Your task to perform on an android device: Search for razer blade on target, select the first entry, and add it to the cart. Image 0: 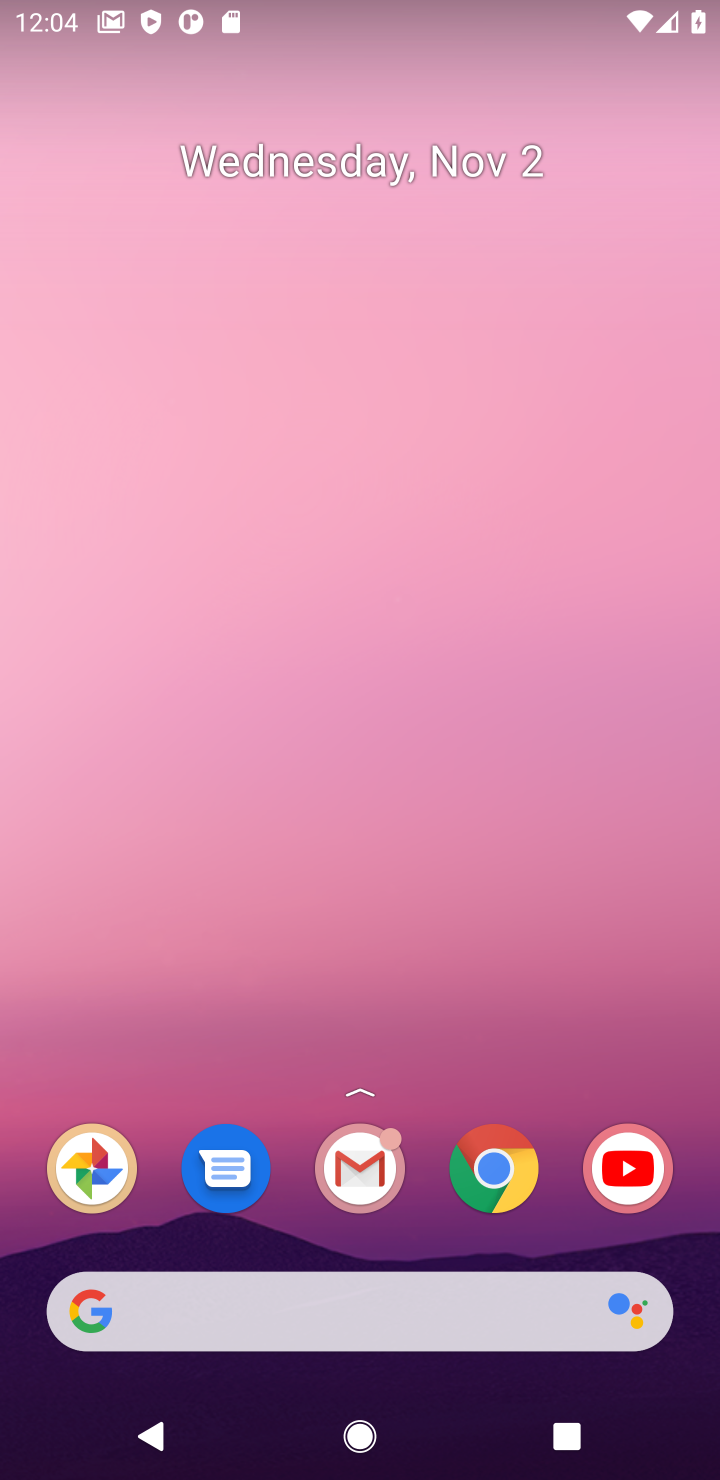
Step 0: click (480, 1165)
Your task to perform on an android device: Search for razer blade on target, select the first entry, and add it to the cart. Image 1: 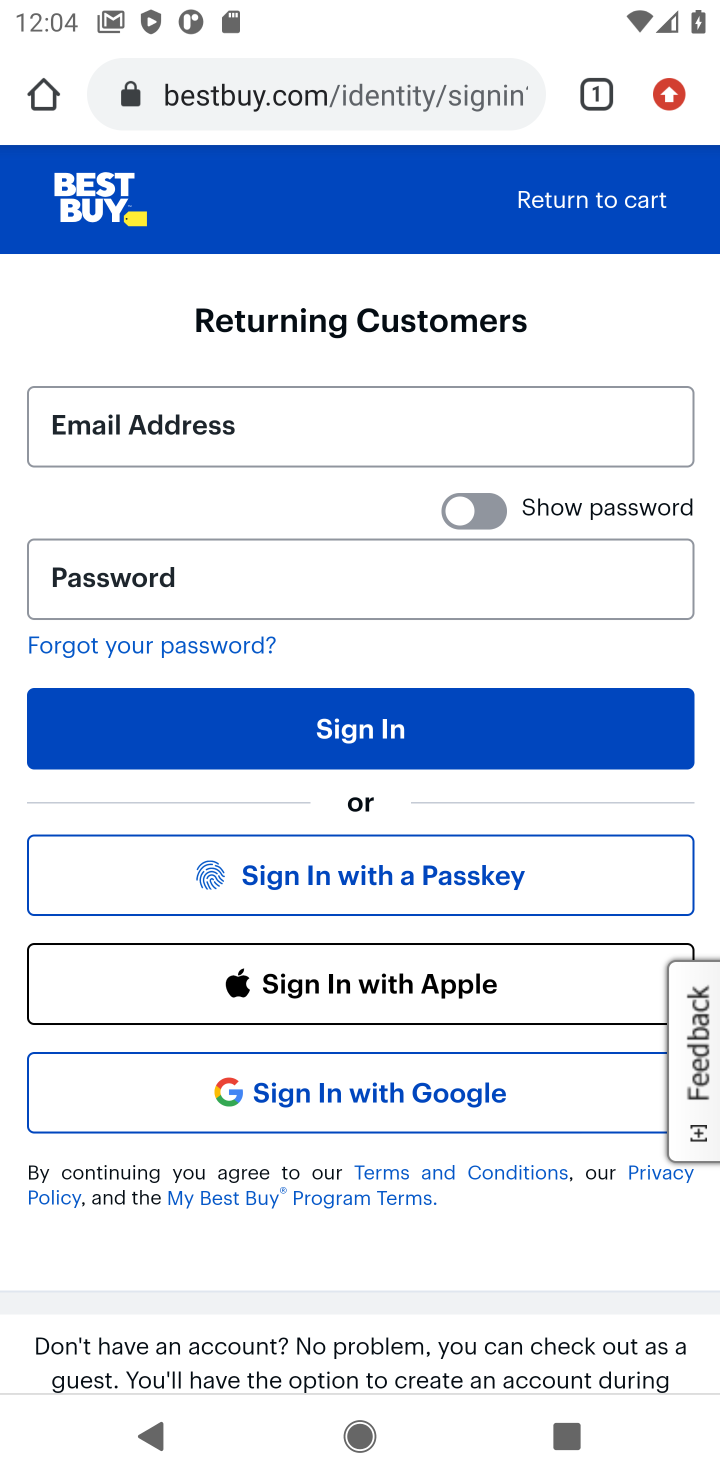
Step 1: click (441, 94)
Your task to perform on an android device: Search for razer blade on target, select the first entry, and add it to the cart. Image 2: 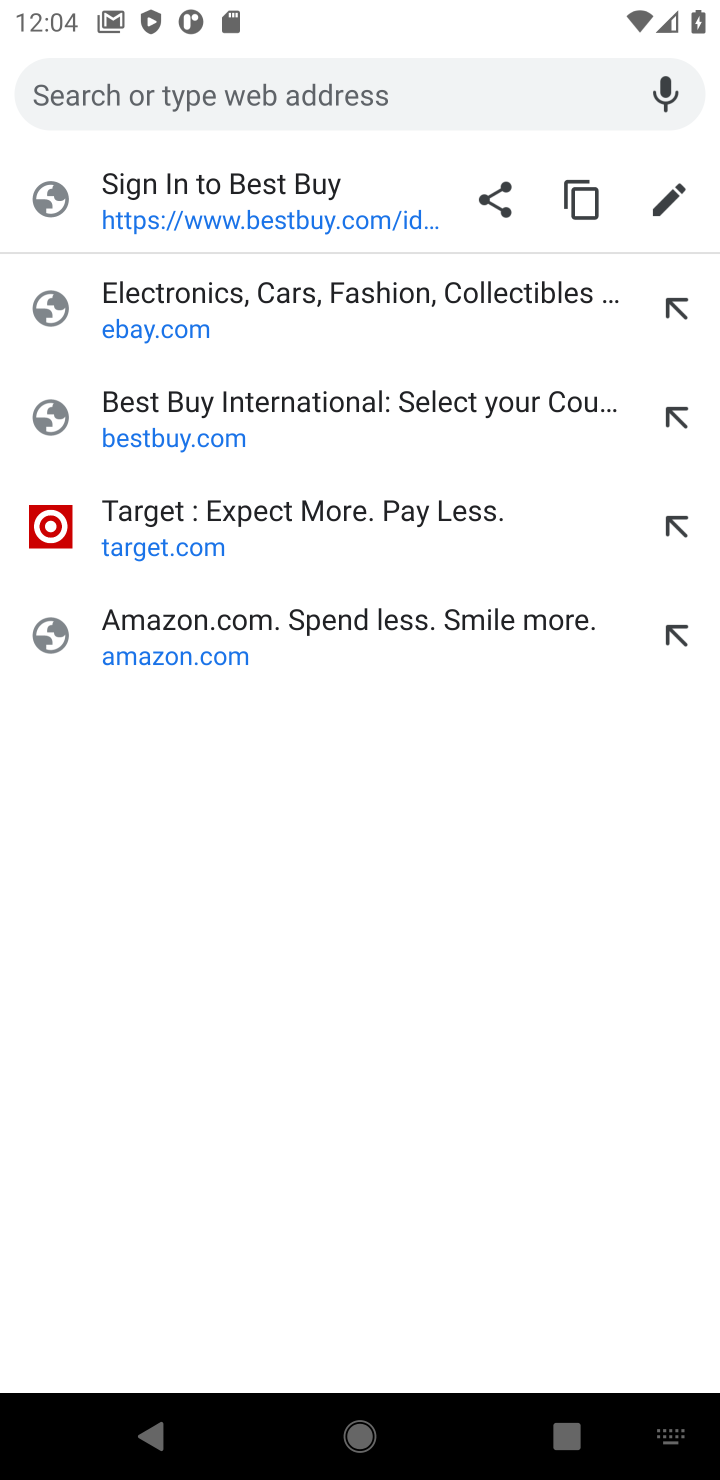
Step 2: press enter
Your task to perform on an android device: Search for razer blade on target, select the first entry, and add it to the cart. Image 3: 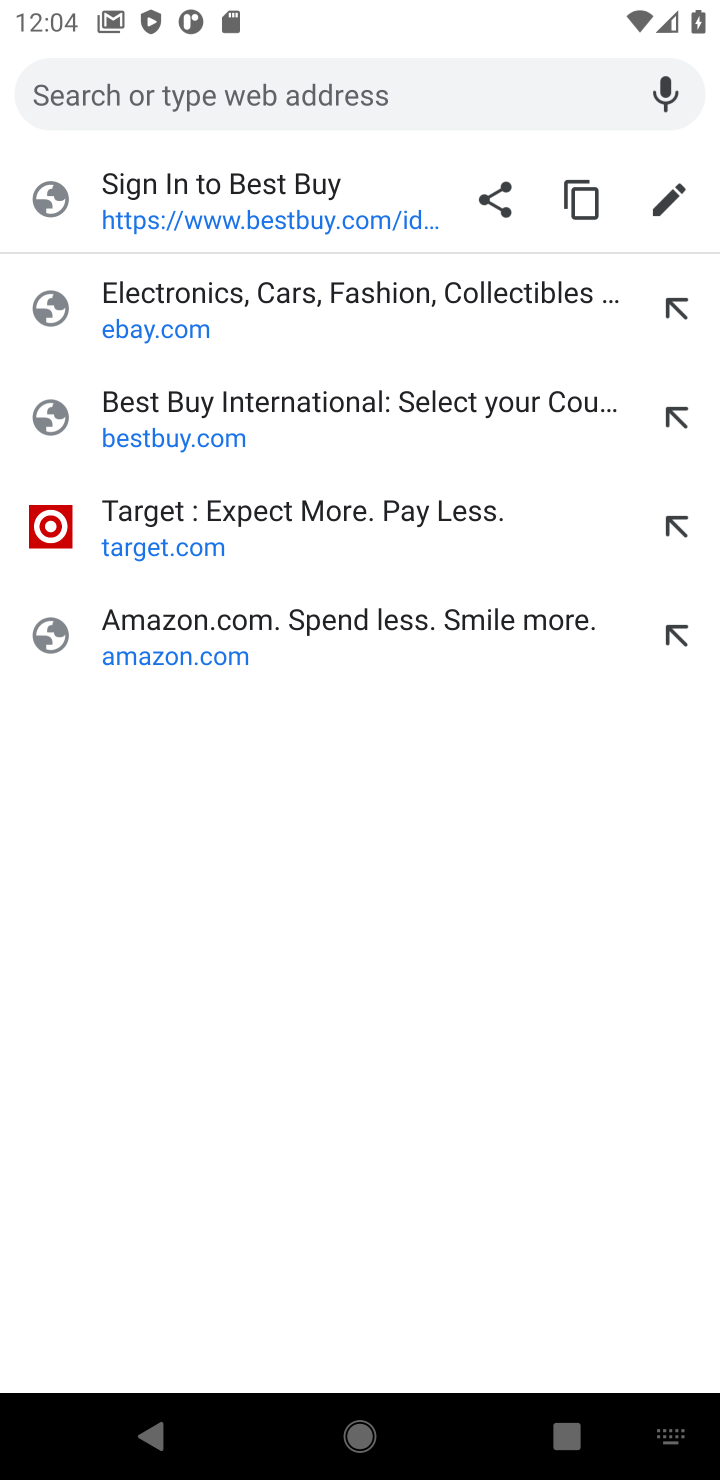
Step 3: type "target"
Your task to perform on an android device: Search for razer blade on target, select the first entry, and add it to the cart. Image 4: 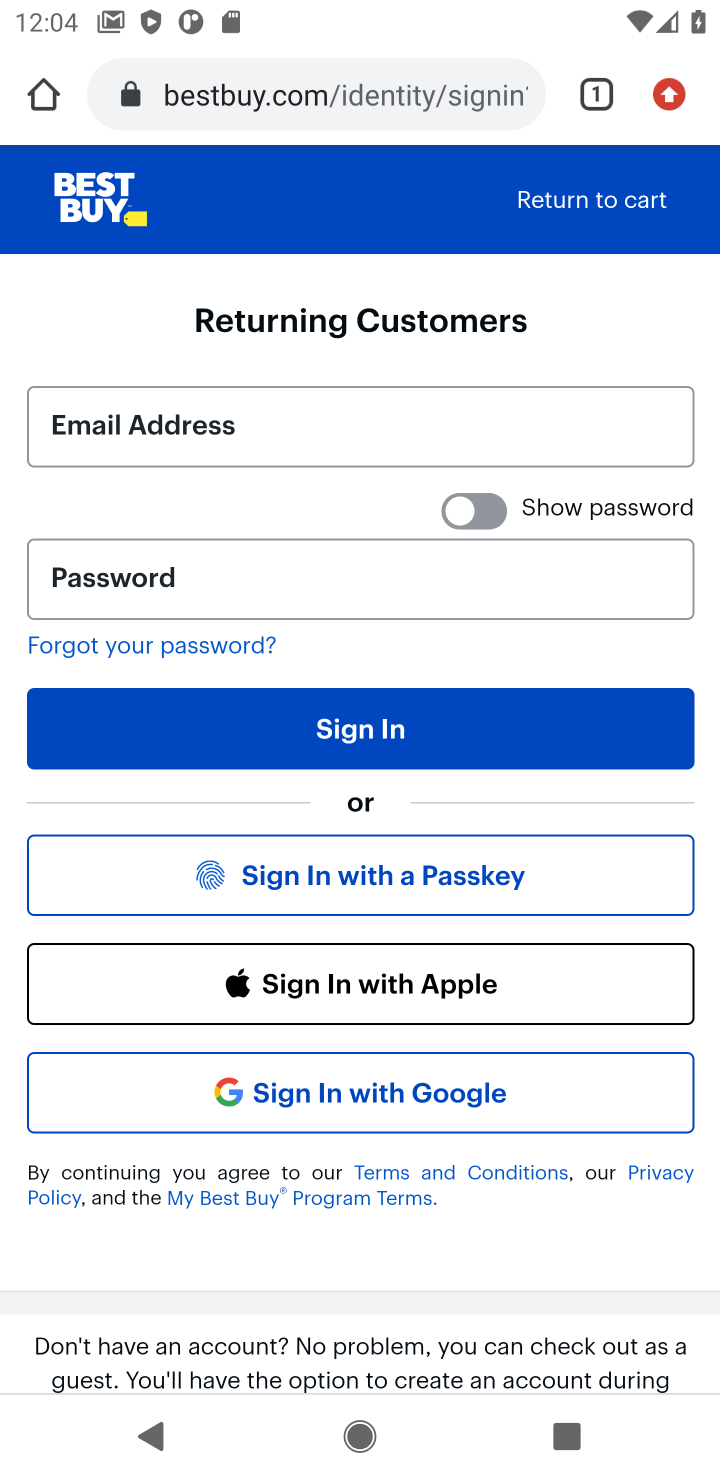
Step 4: click (244, 94)
Your task to perform on an android device: Search for razer blade on target, select the first entry, and add it to the cart. Image 5: 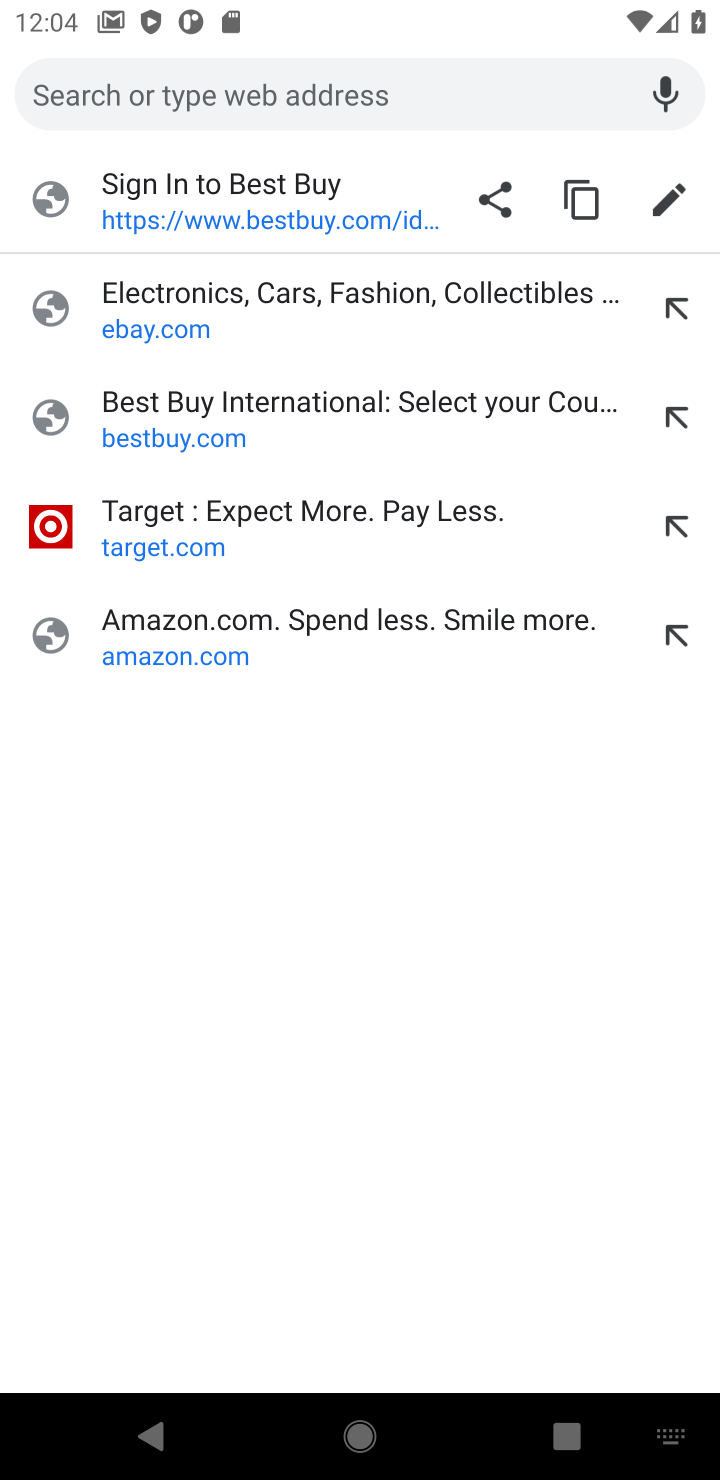
Step 5: type "target"
Your task to perform on an android device: Search for razer blade on target, select the first entry, and add it to the cart. Image 6: 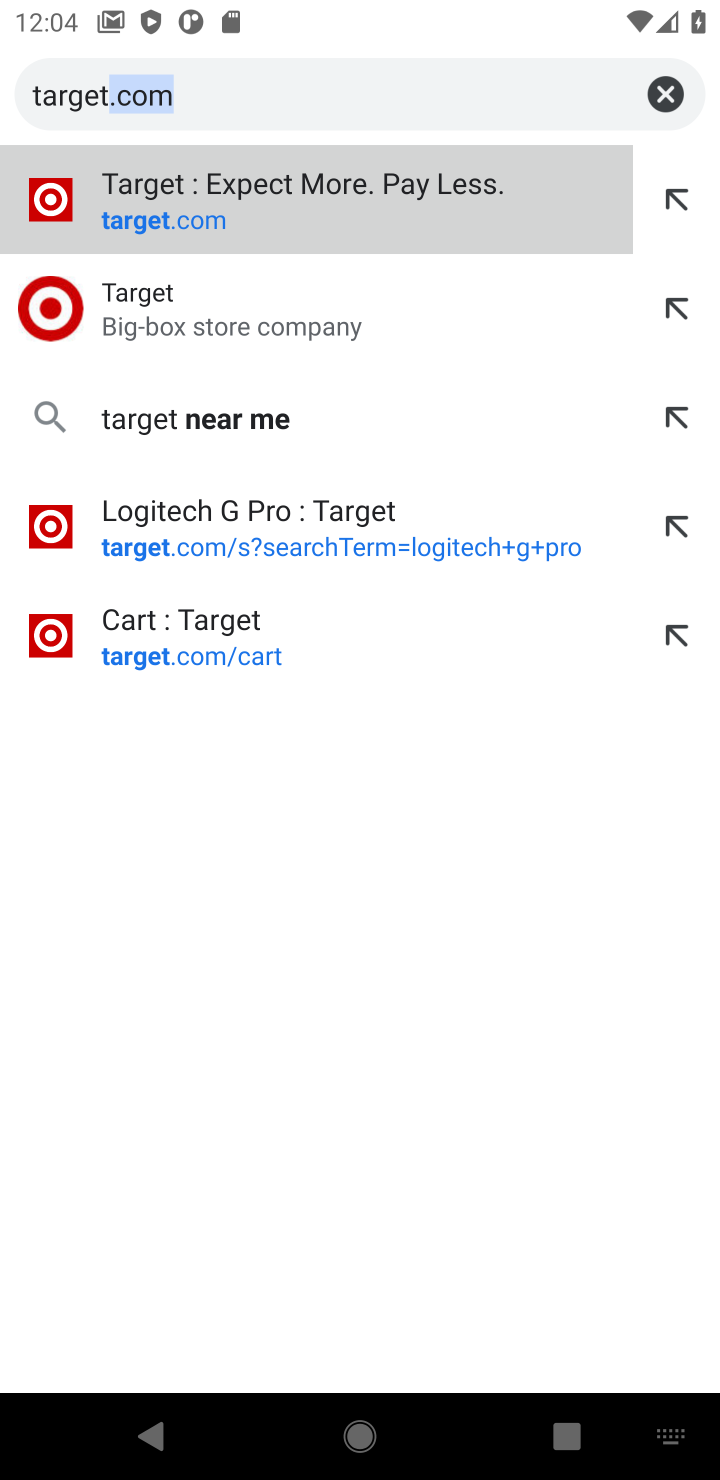
Step 6: press enter
Your task to perform on an android device: Search for razer blade on target, select the first entry, and add it to the cart. Image 7: 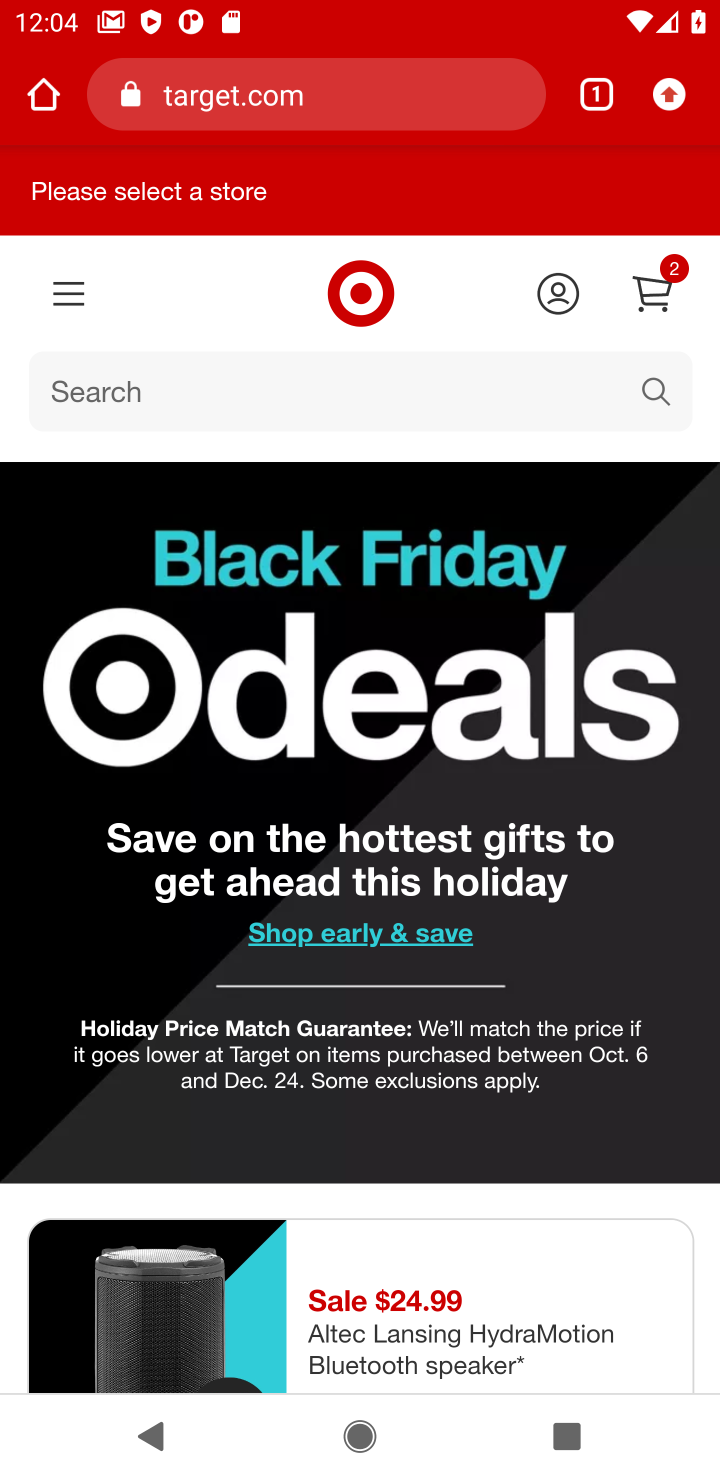
Step 7: click (640, 383)
Your task to perform on an android device: Search for razer blade on target, select the first entry, and add it to the cart. Image 8: 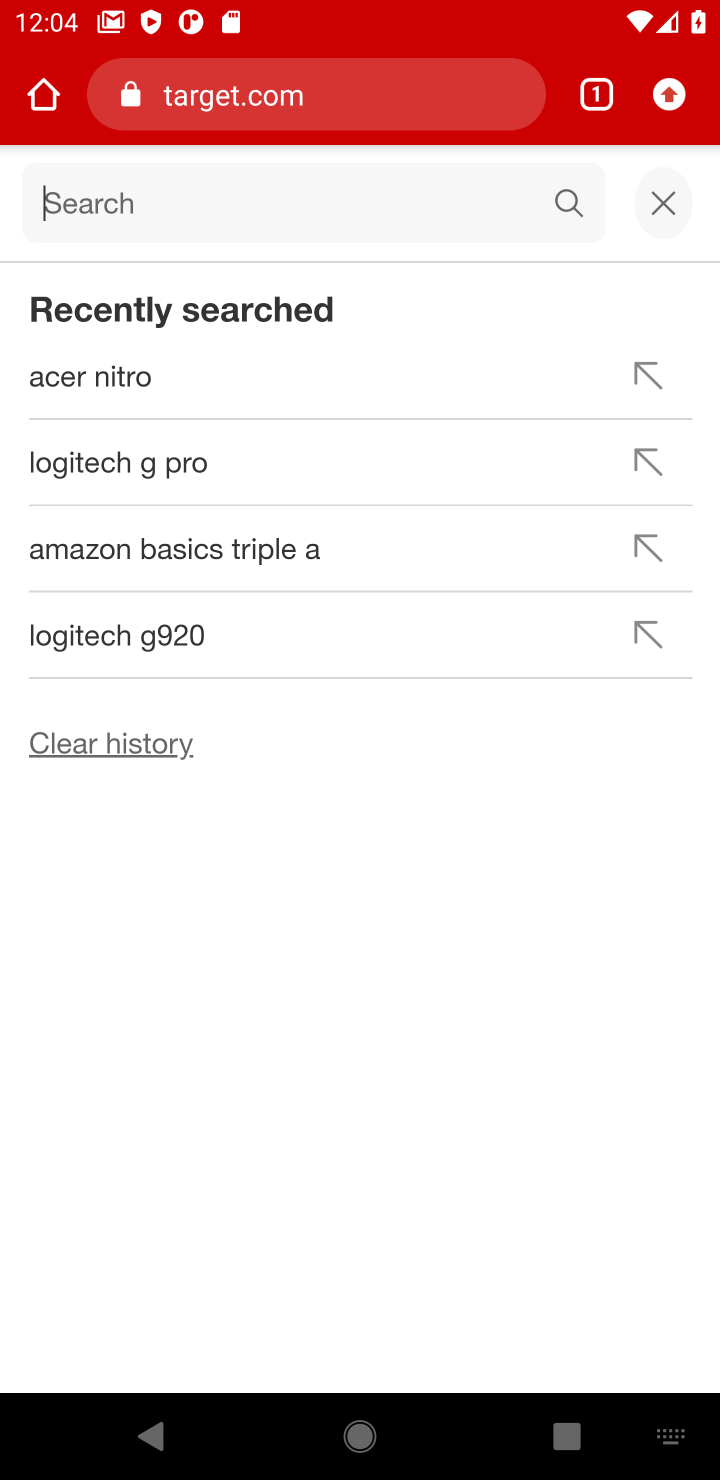
Step 8: type "razer blade"
Your task to perform on an android device: Search for razer blade on target, select the first entry, and add it to the cart. Image 9: 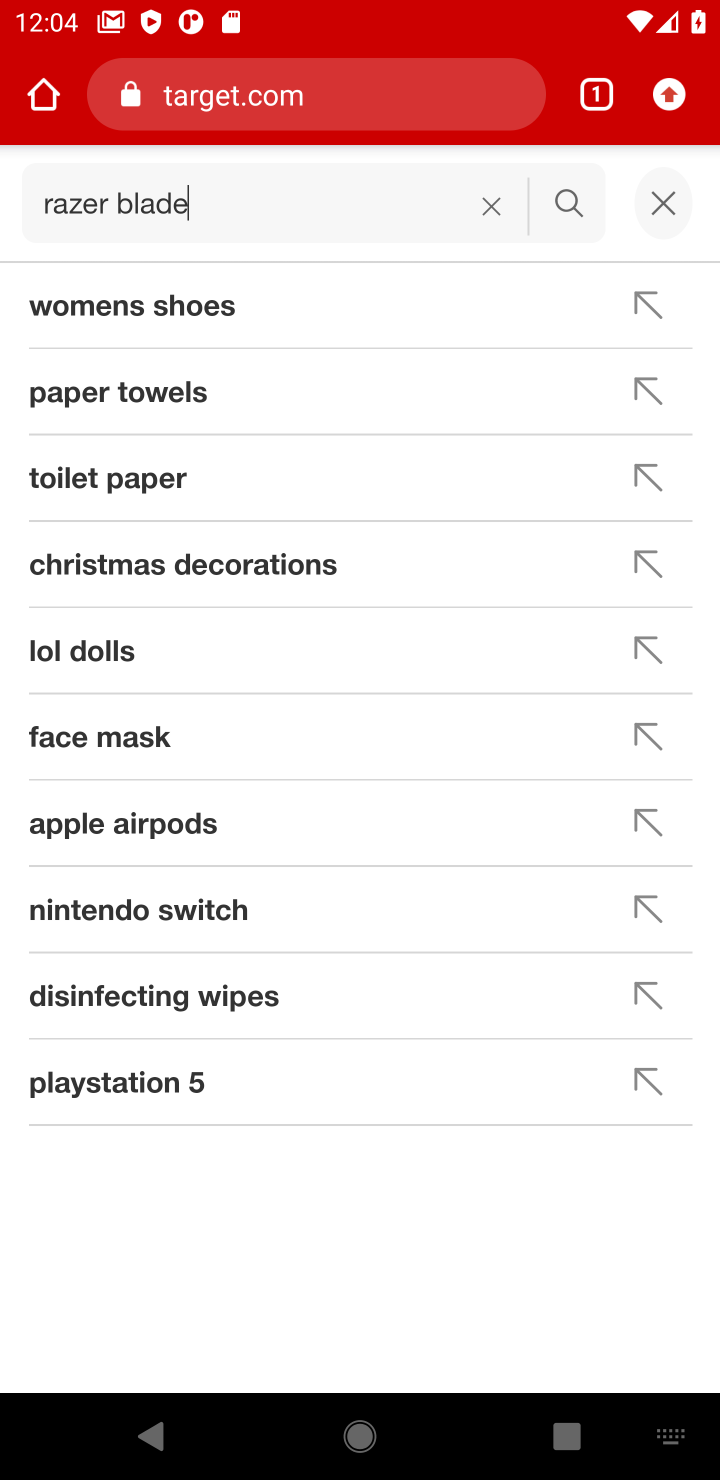
Step 9: press enter
Your task to perform on an android device: Search for razer blade on target, select the first entry, and add it to the cart. Image 10: 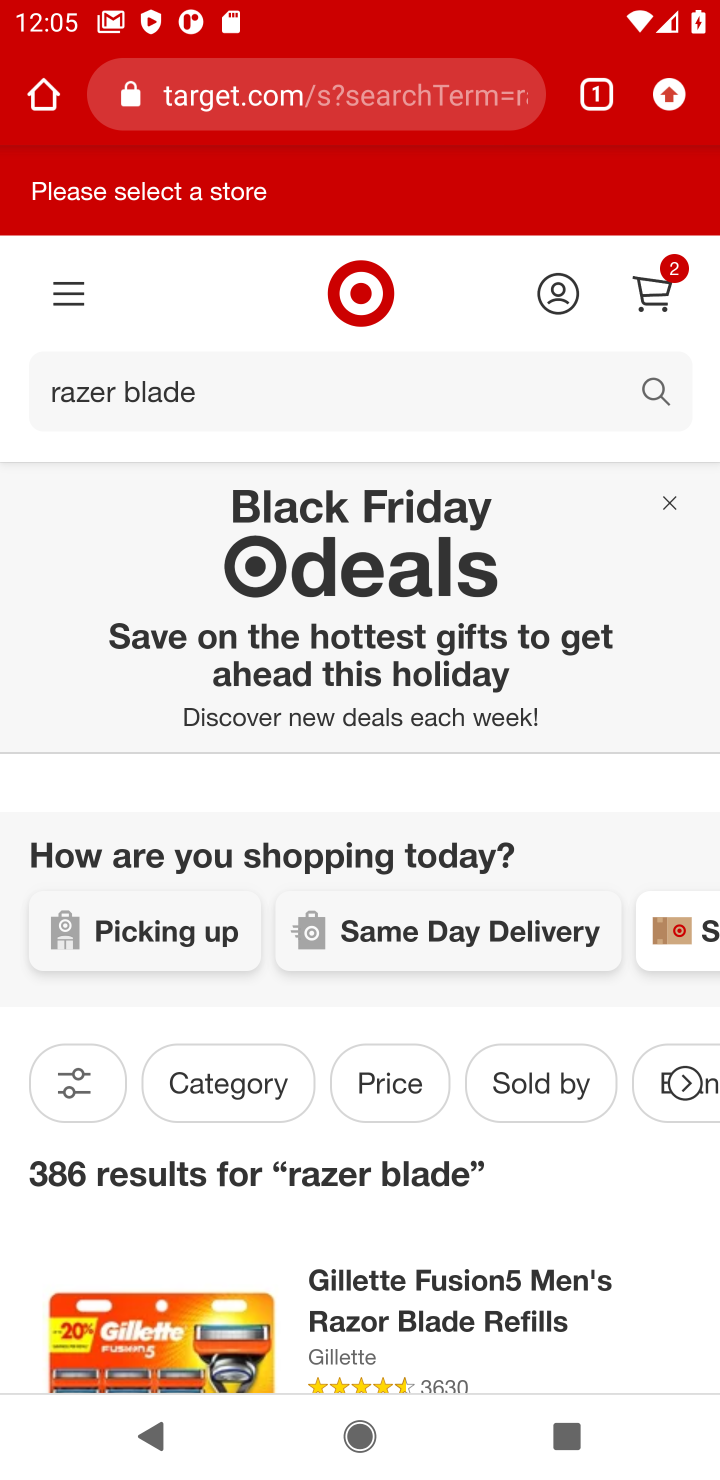
Step 10: click (452, 1287)
Your task to perform on an android device: Search for razer blade on target, select the first entry, and add it to the cart. Image 11: 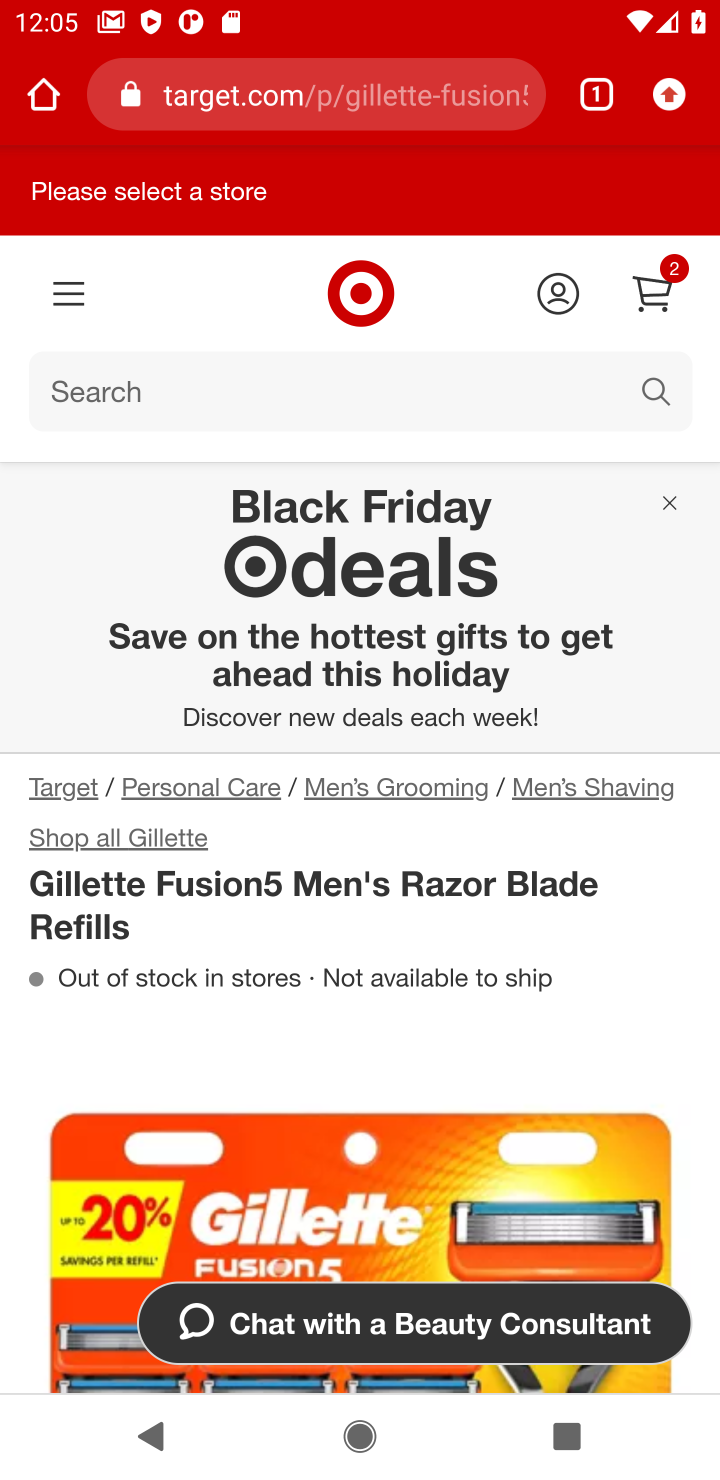
Step 11: drag from (520, 934) to (573, 355)
Your task to perform on an android device: Search for razer blade on target, select the first entry, and add it to the cart. Image 12: 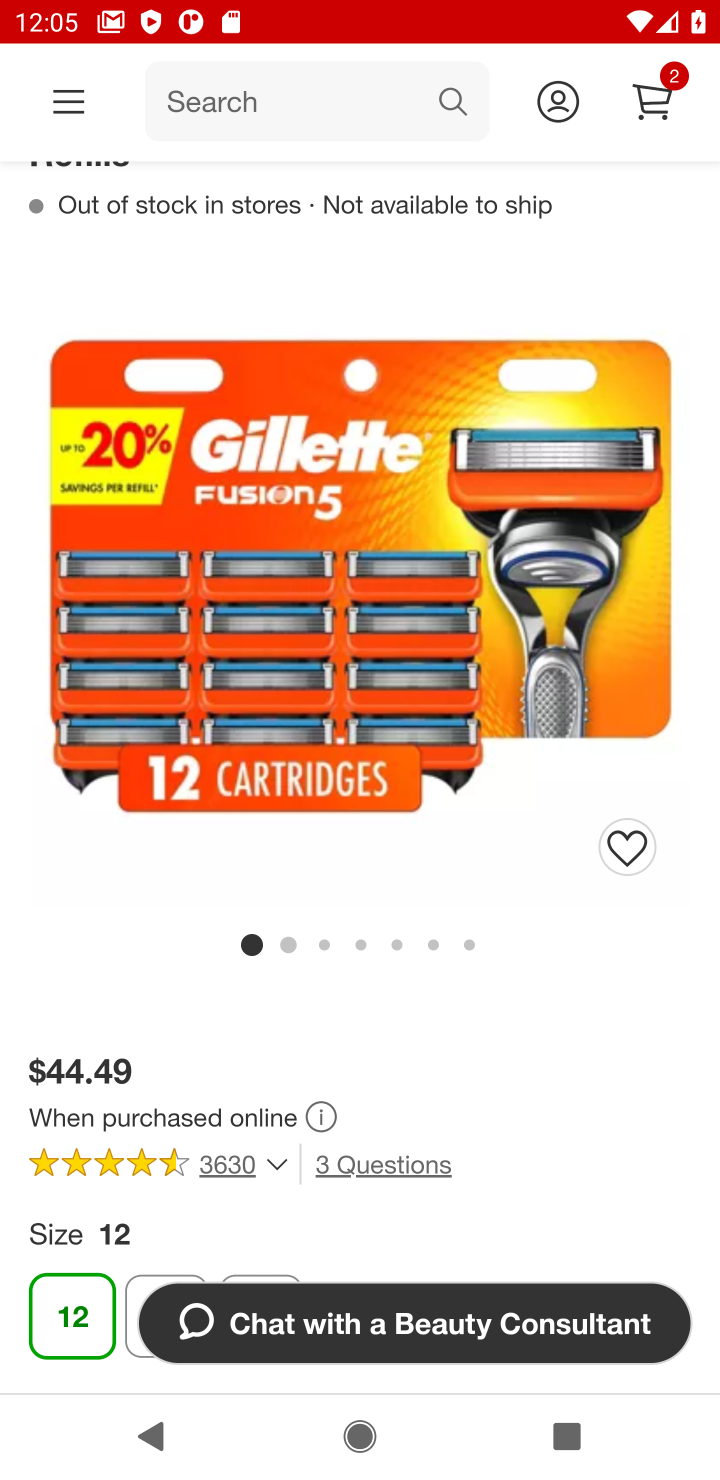
Step 12: drag from (545, 1092) to (537, 592)
Your task to perform on an android device: Search for razer blade on target, select the first entry, and add it to the cart. Image 13: 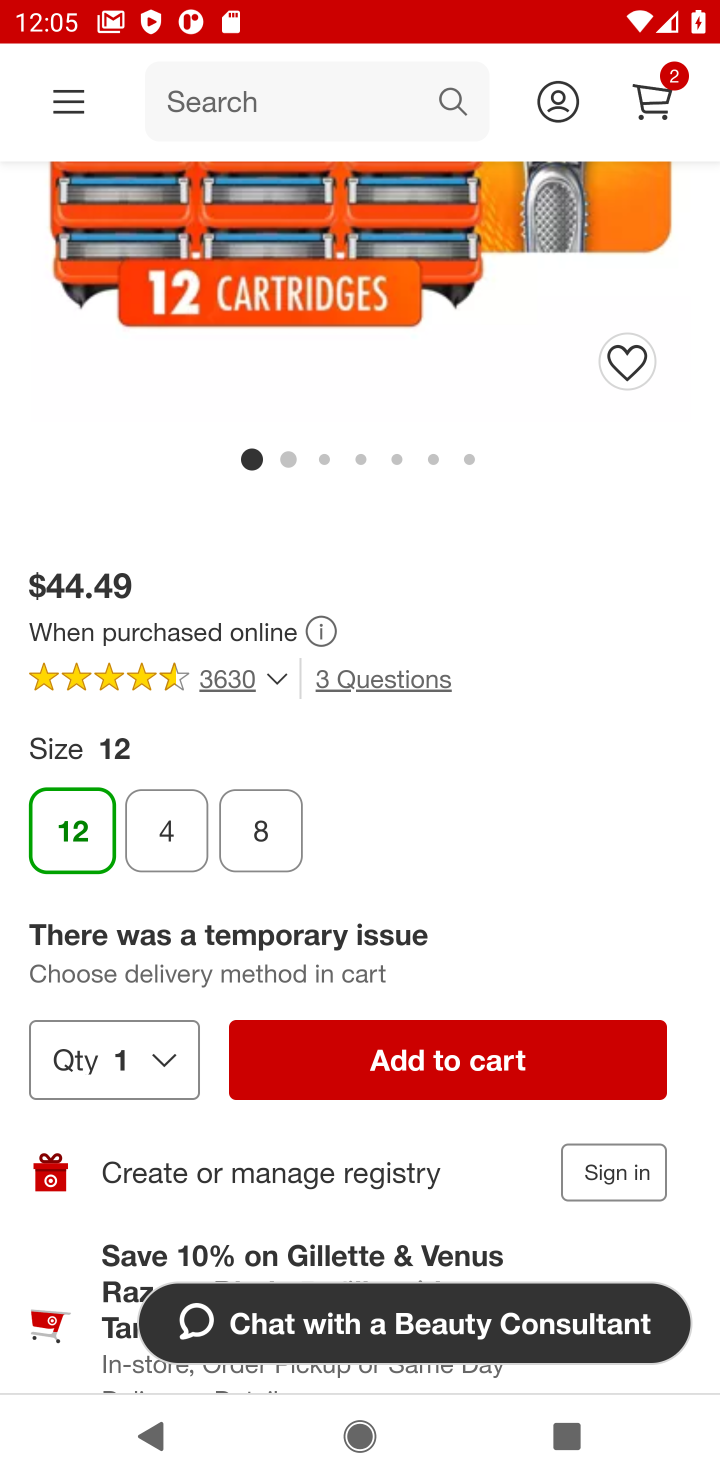
Step 13: click (466, 1059)
Your task to perform on an android device: Search for razer blade on target, select the first entry, and add it to the cart. Image 14: 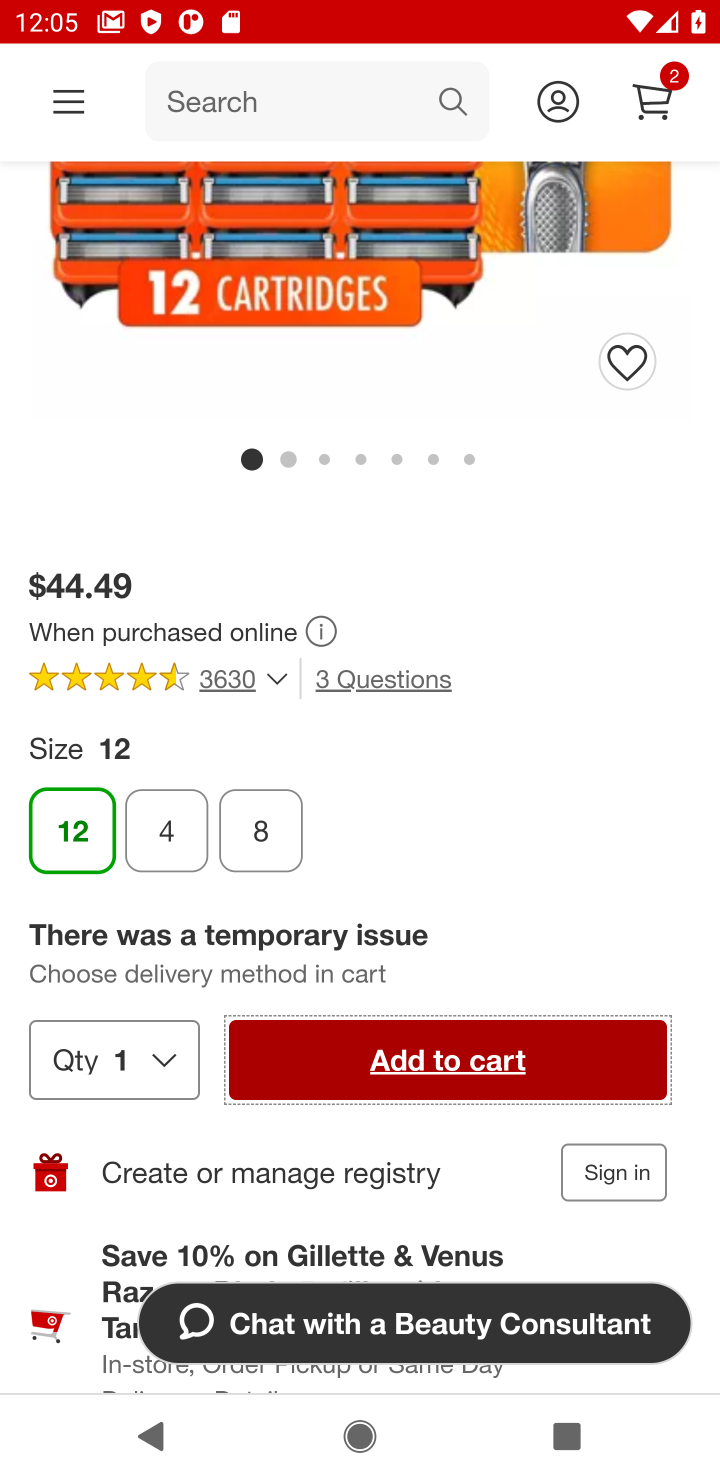
Step 14: click (482, 1061)
Your task to perform on an android device: Search for razer blade on target, select the first entry, and add it to the cart. Image 15: 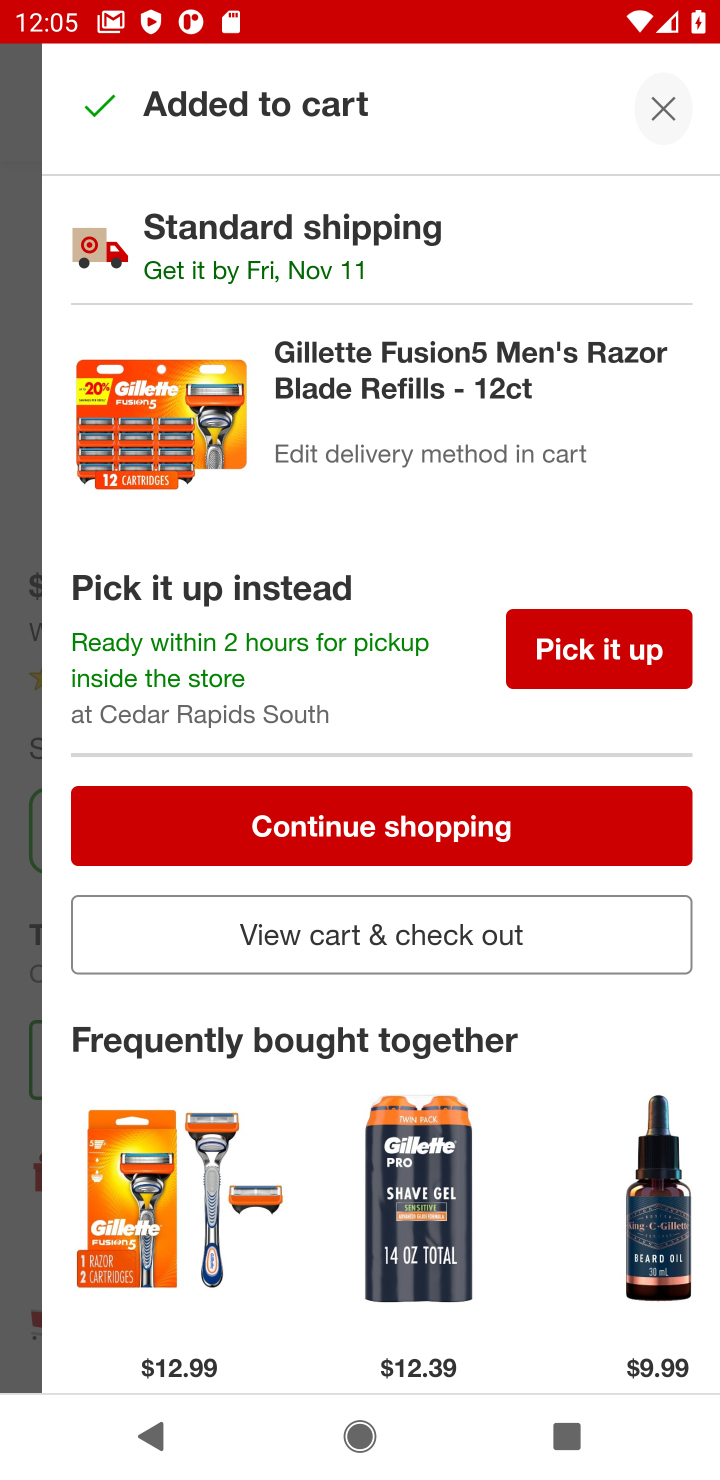
Step 15: task complete